Your task to perform on an android device: Search for the best rated mattress topper on Target. Image 0: 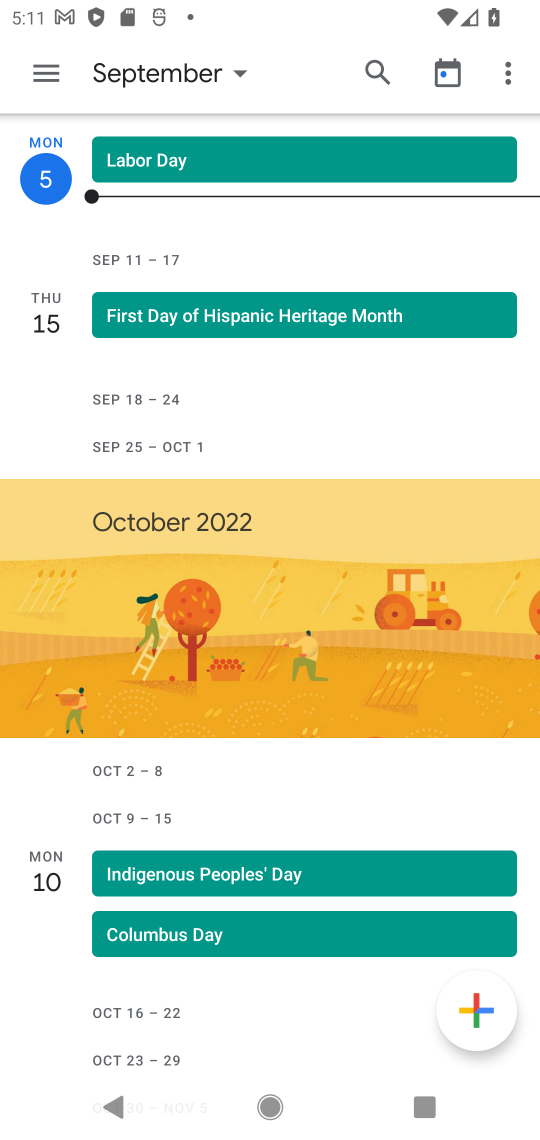
Step 0: press home button
Your task to perform on an android device: Search for the best rated mattress topper on Target. Image 1: 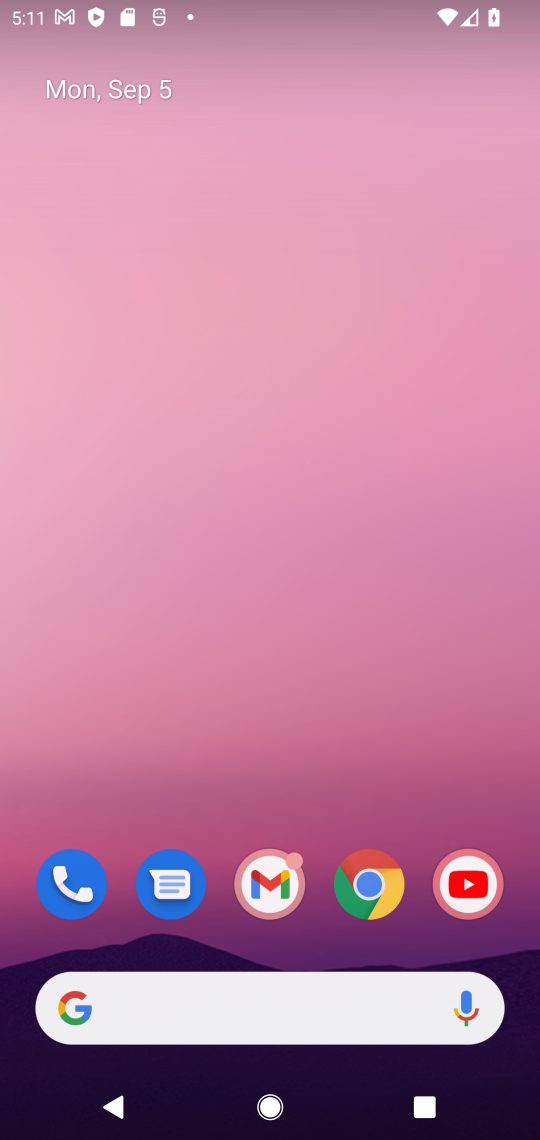
Step 1: press home button
Your task to perform on an android device: Search for the best rated mattress topper on Target. Image 2: 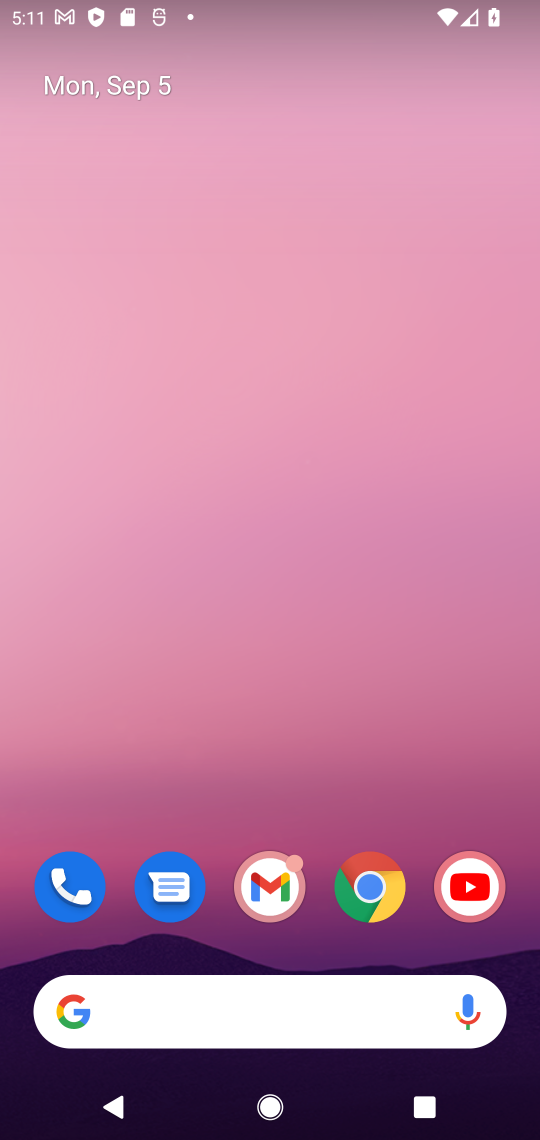
Step 2: click (358, 146)
Your task to perform on an android device: Search for the best rated mattress topper on Target. Image 3: 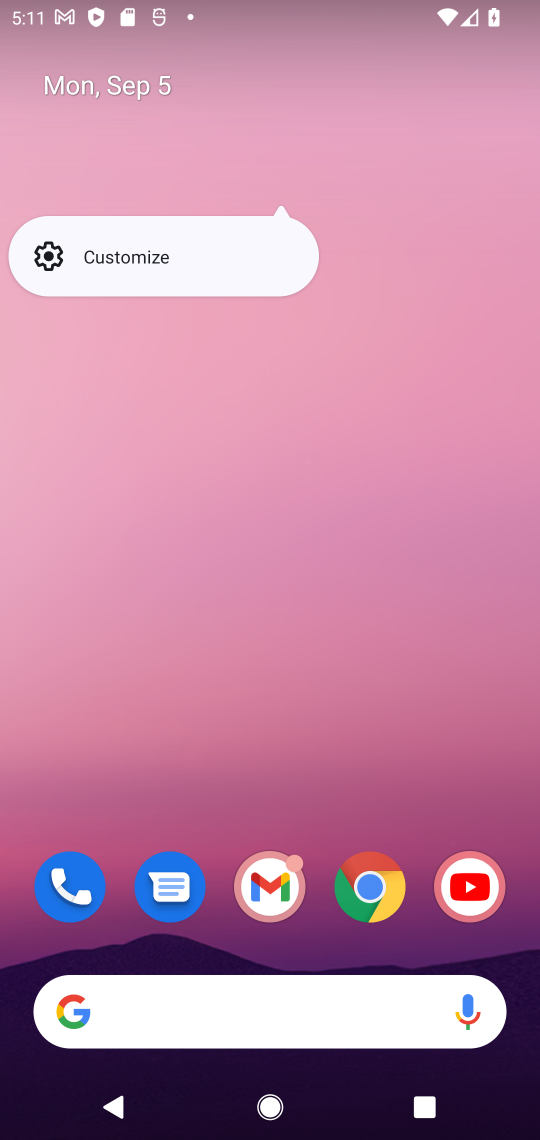
Step 3: click (442, 574)
Your task to perform on an android device: Search for the best rated mattress topper on Target. Image 4: 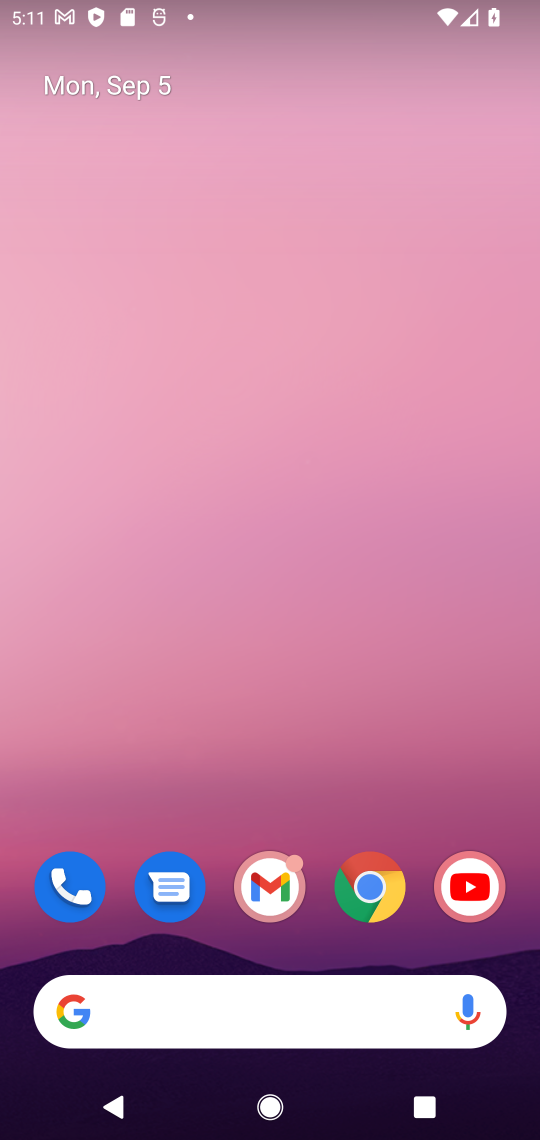
Step 4: drag from (352, 212) to (353, 12)
Your task to perform on an android device: Search for the best rated mattress topper on Target. Image 5: 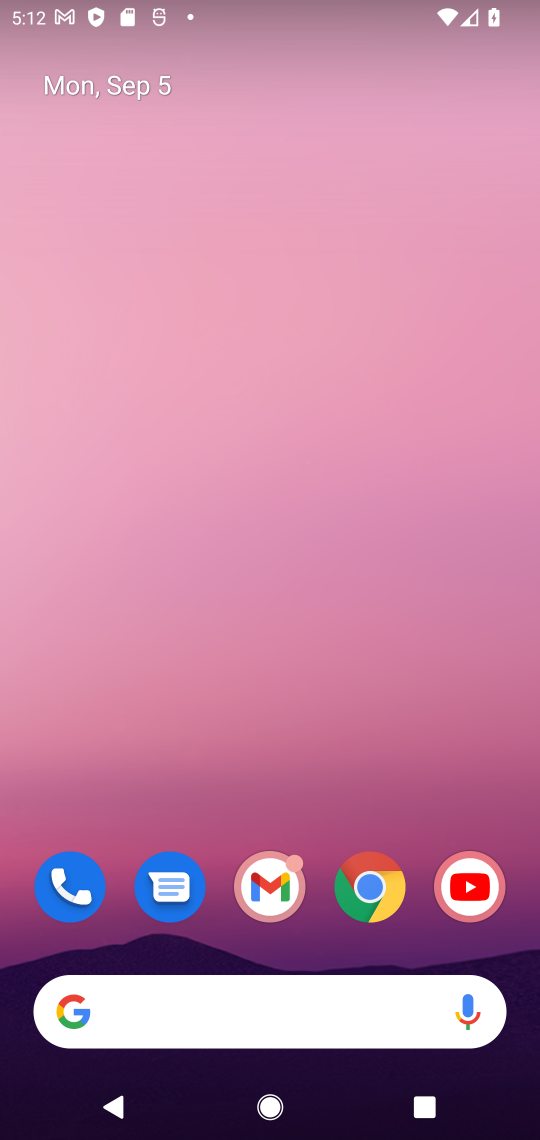
Step 5: drag from (315, 815) to (336, 38)
Your task to perform on an android device: Search for the best rated mattress topper on Target. Image 6: 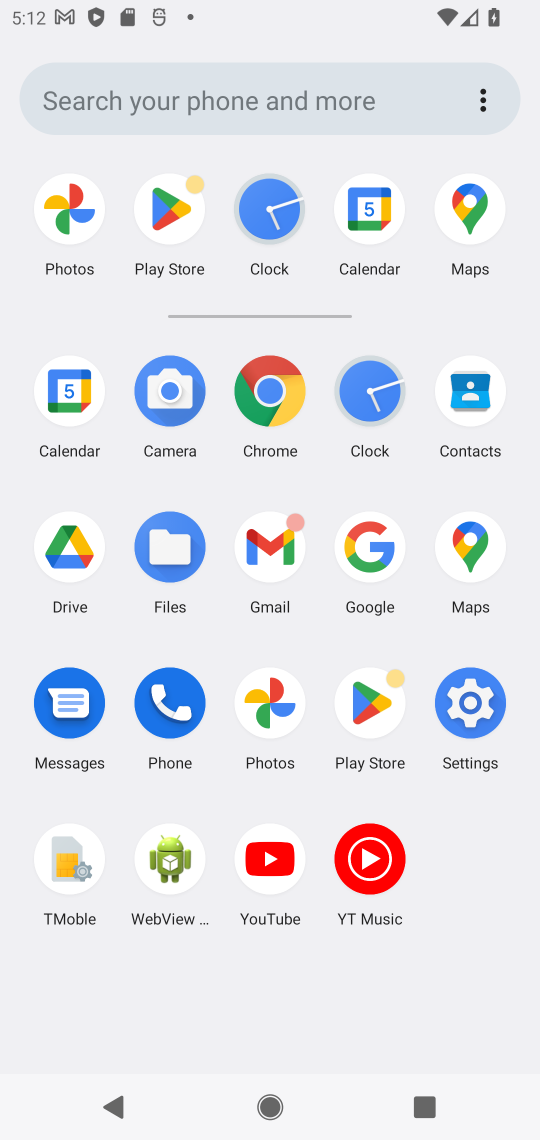
Step 6: click (270, 398)
Your task to perform on an android device: Search for the best rated mattress topper on Target. Image 7: 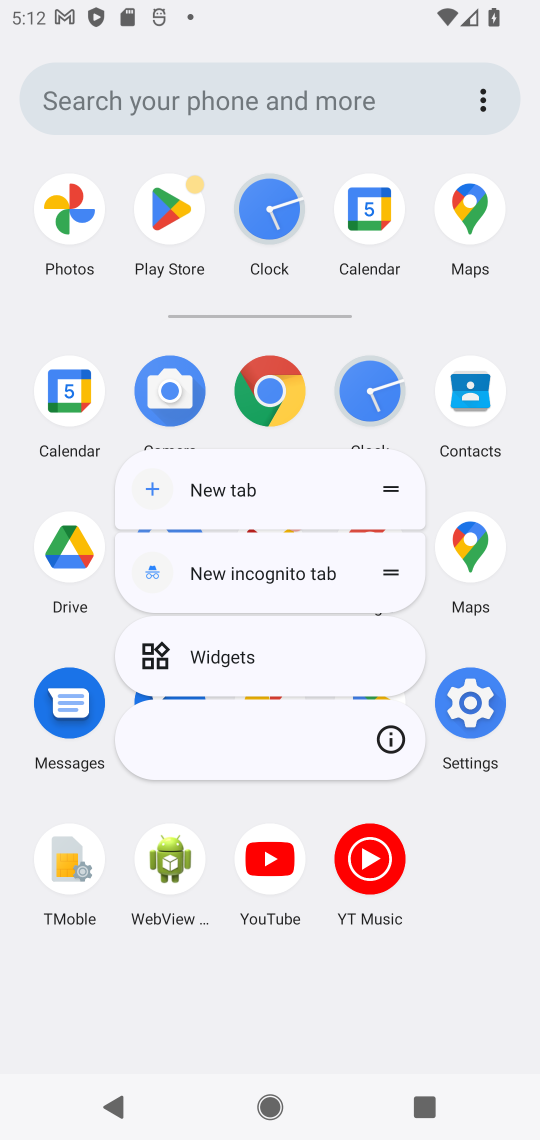
Step 7: click (261, 393)
Your task to perform on an android device: Search for the best rated mattress topper on Target. Image 8: 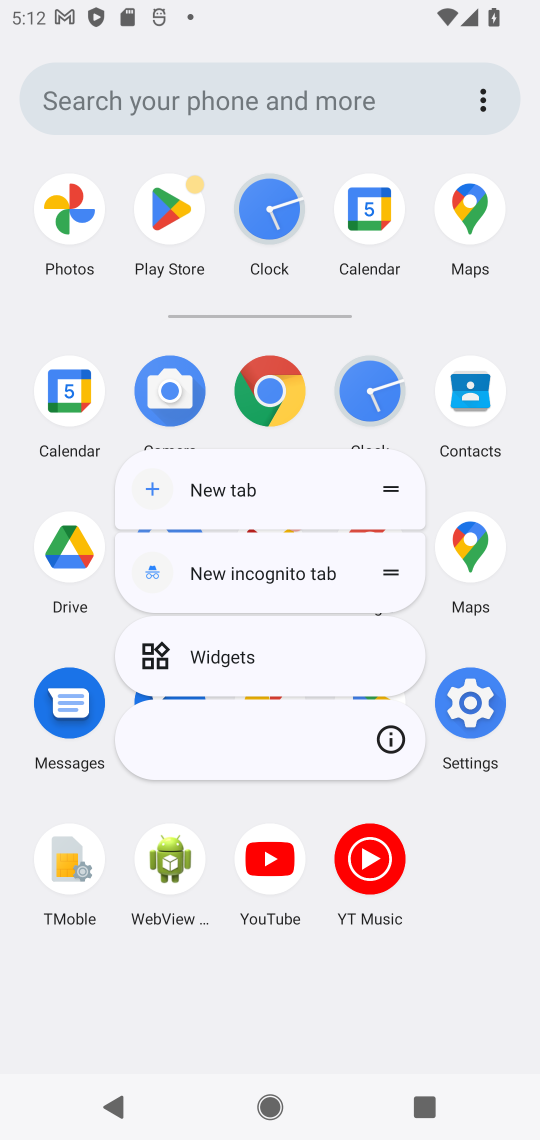
Step 8: click (266, 387)
Your task to perform on an android device: Search for the best rated mattress topper on Target. Image 9: 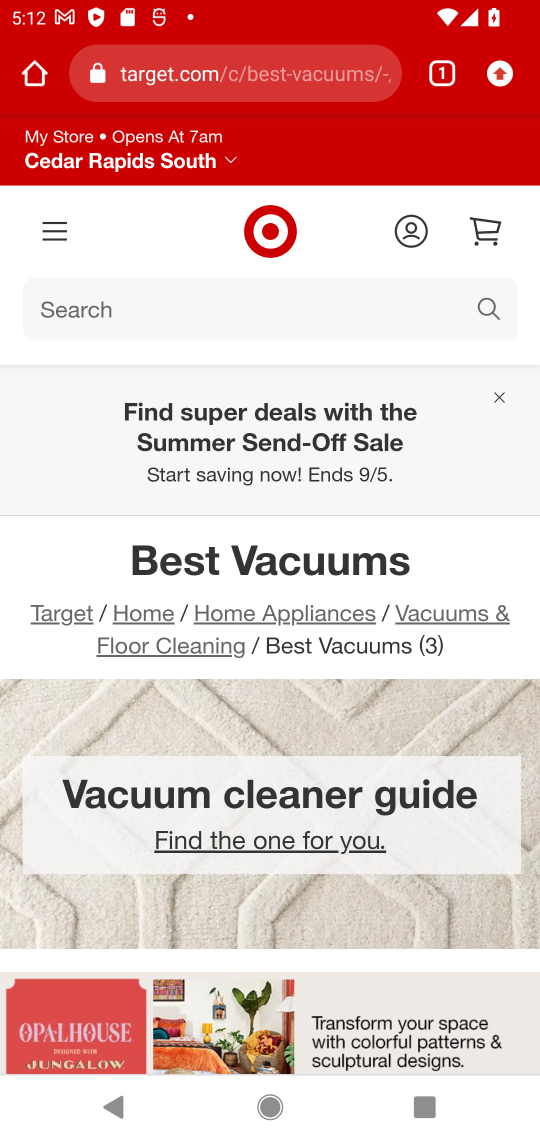
Step 9: click (296, 71)
Your task to perform on an android device: Search for the best rated mattress topper on Target. Image 10: 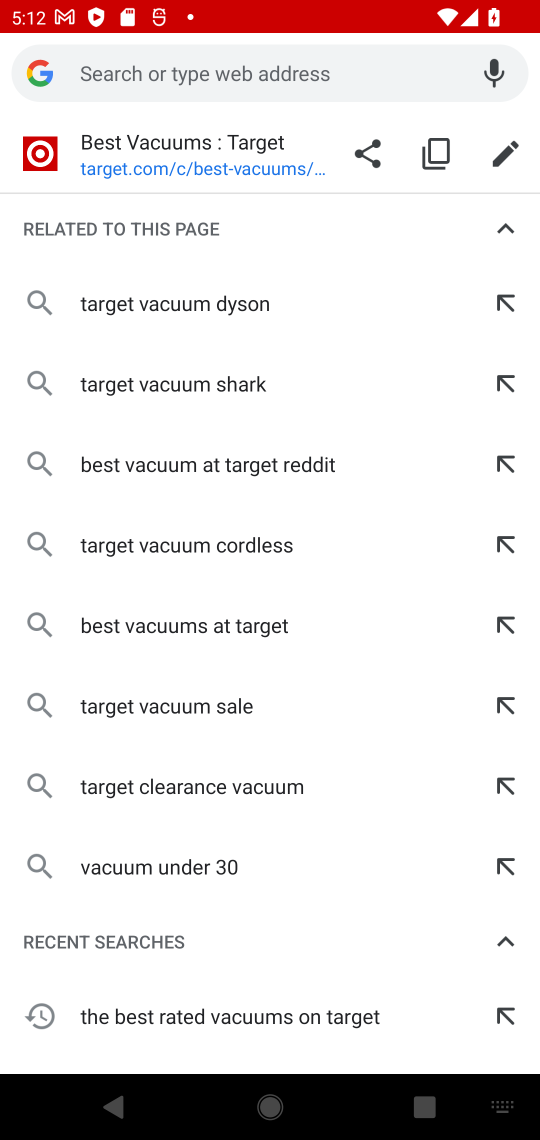
Step 10: type "best rated mattress topper on Target"
Your task to perform on an android device: Search for the best rated mattress topper on Target. Image 11: 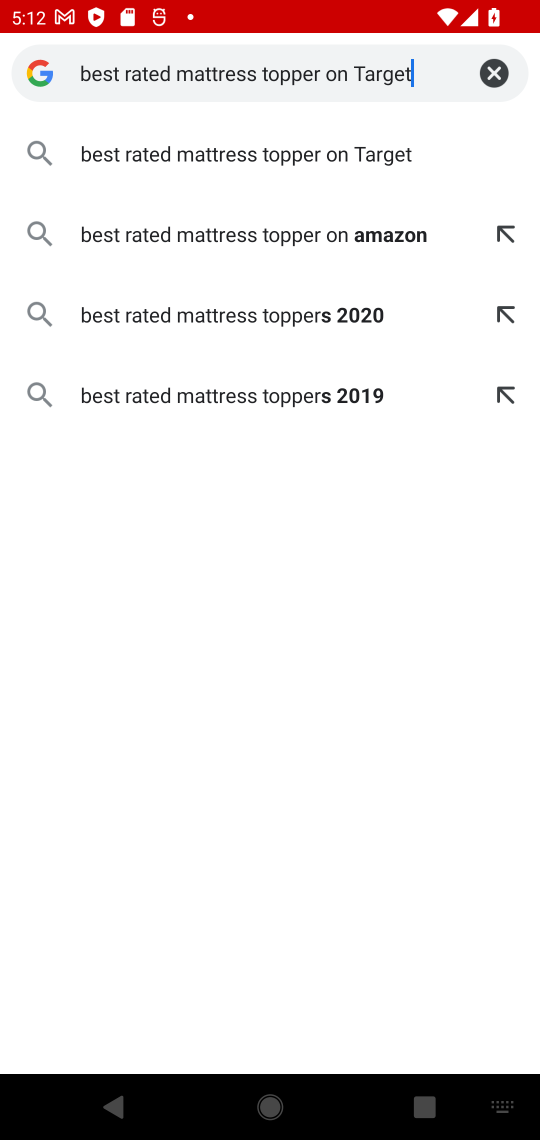
Step 11: press enter
Your task to perform on an android device: Search for the best rated mattress topper on Target. Image 12: 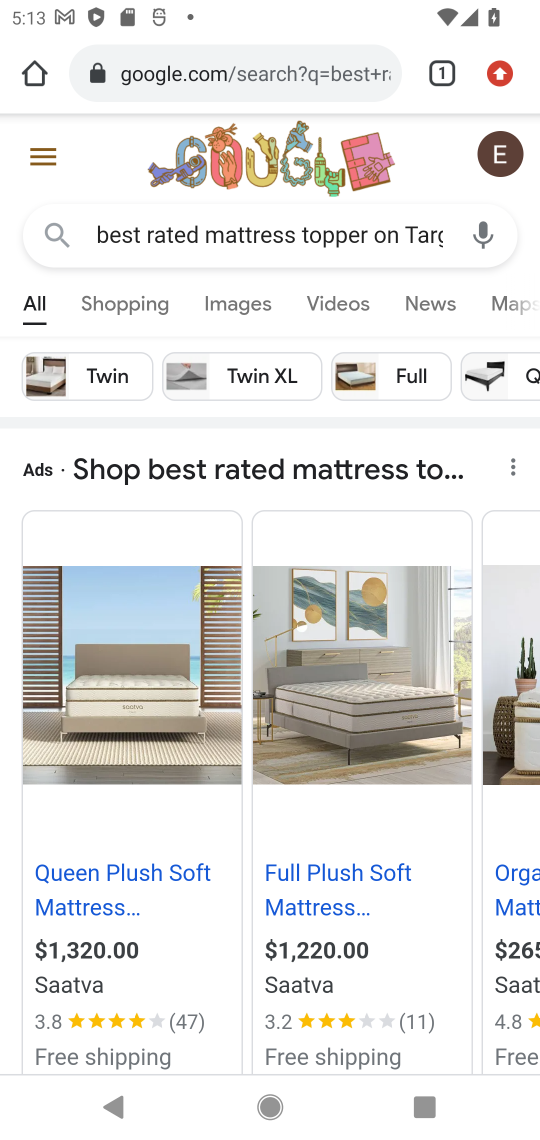
Step 12: drag from (258, 644) to (252, 49)
Your task to perform on an android device: Search for the best rated mattress topper on Target. Image 13: 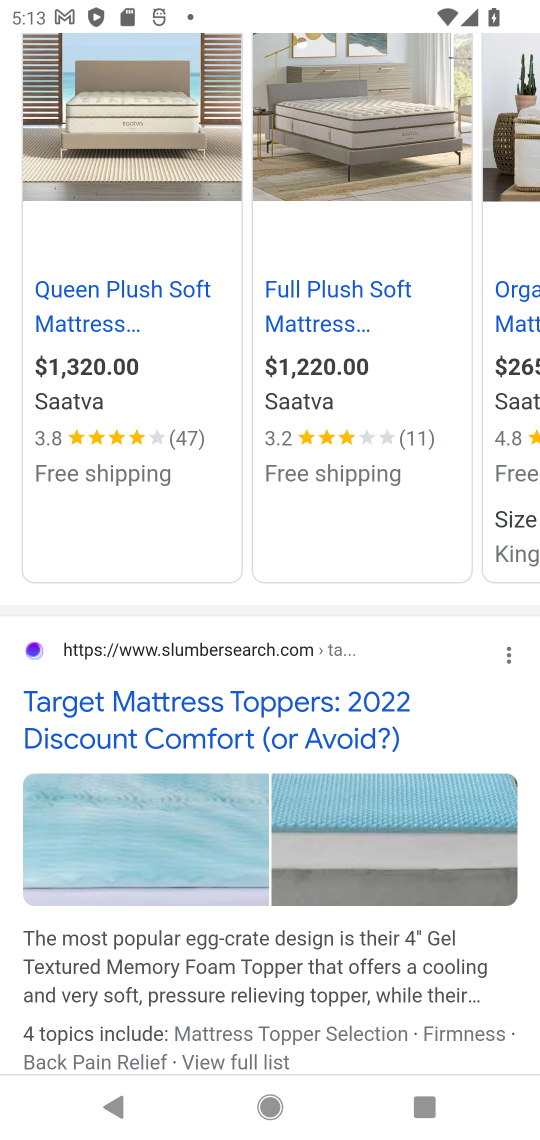
Step 13: drag from (379, 713) to (415, 106)
Your task to perform on an android device: Search for the best rated mattress topper on Target. Image 14: 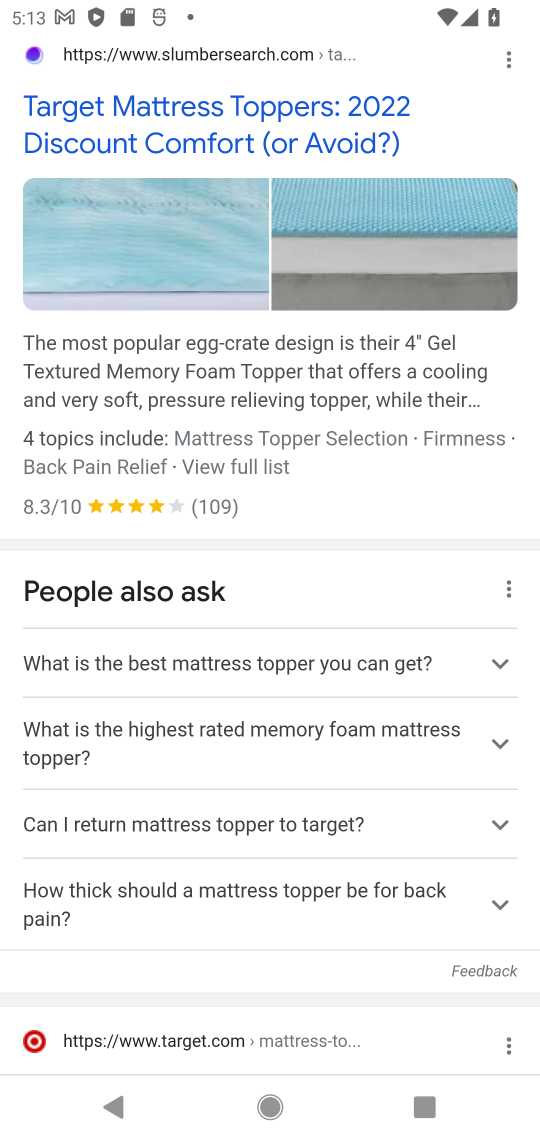
Step 14: drag from (284, 983) to (326, 506)
Your task to perform on an android device: Search for the best rated mattress topper on Target. Image 15: 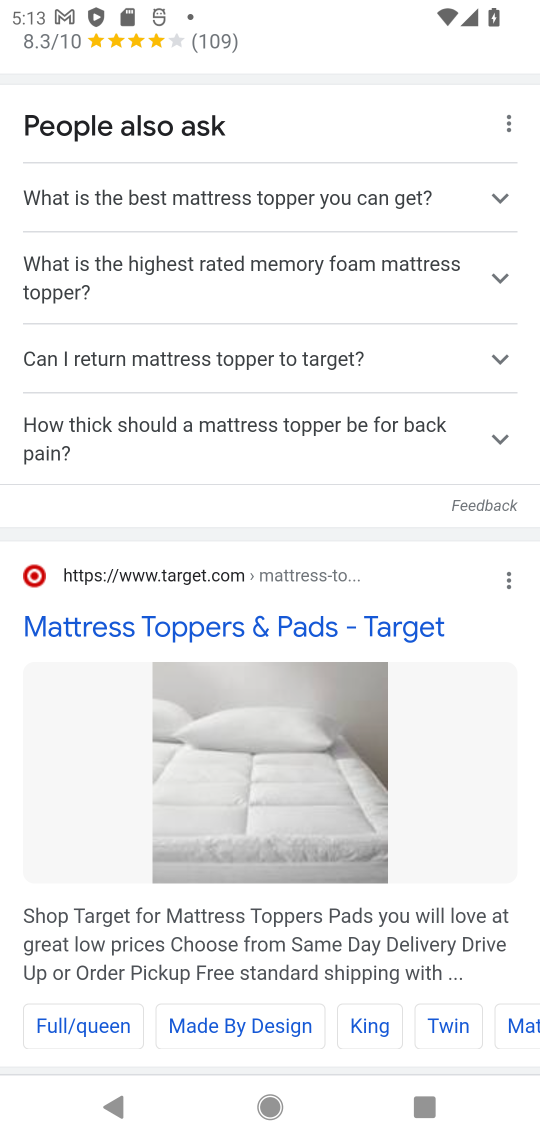
Step 15: click (240, 620)
Your task to perform on an android device: Search for the best rated mattress topper on Target. Image 16: 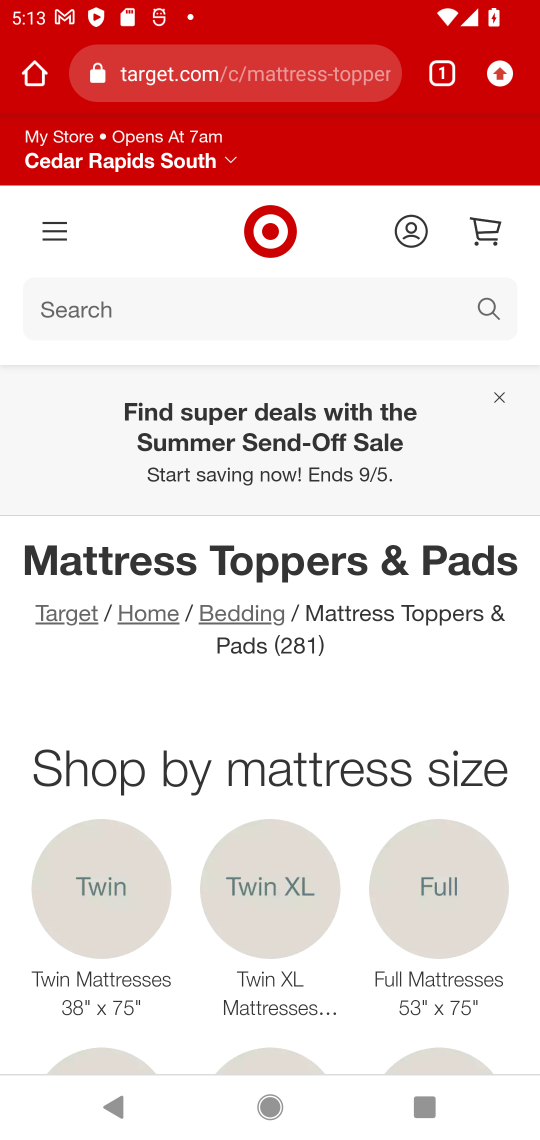
Step 16: task complete